Your task to perform on an android device: read, delete, or share a saved page in the chrome app Image 0: 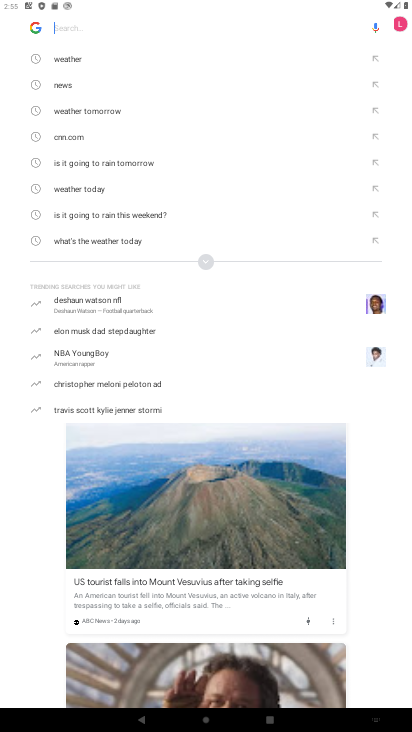
Step 0: press home button
Your task to perform on an android device: read, delete, or share a saved page in the chrome app Image 1: 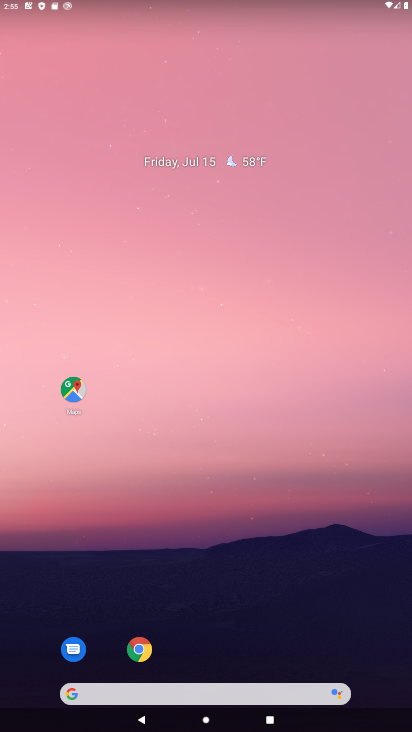
Step 1: drag from (235, 722) to (297, 213)
Your task to perform on an android device: read, delete, or share a saved page in the chrome app Image 2: 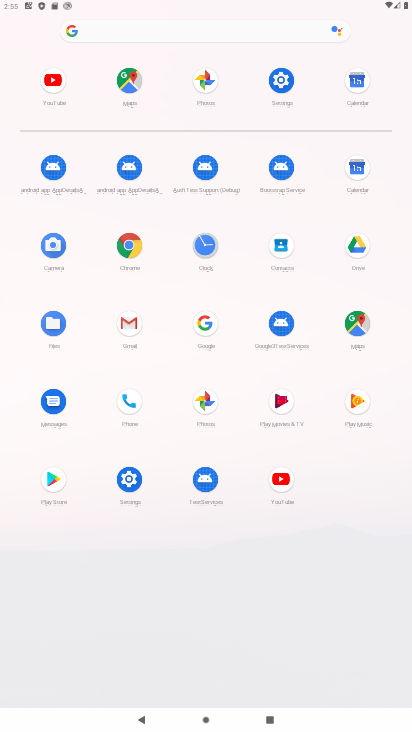
Step 2: click (136, 249)
Your task to perform on an android device: read, delete, or share a saved page in the chrome app Image 3: 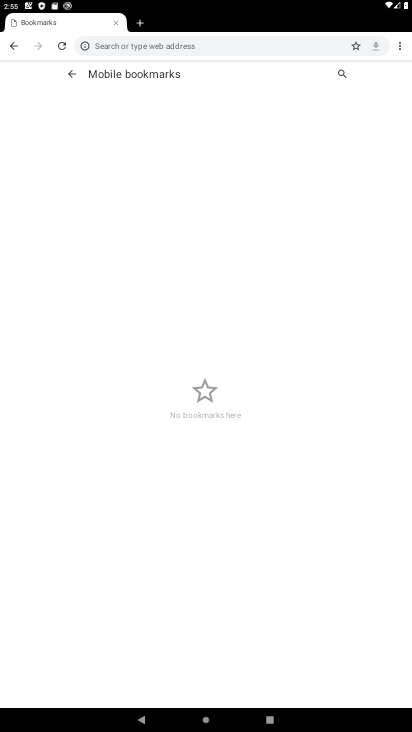
Step 3: click (399, 46)
Your task to perform on an android device: read, delete, or share a saved page in the chrome app Image 4: 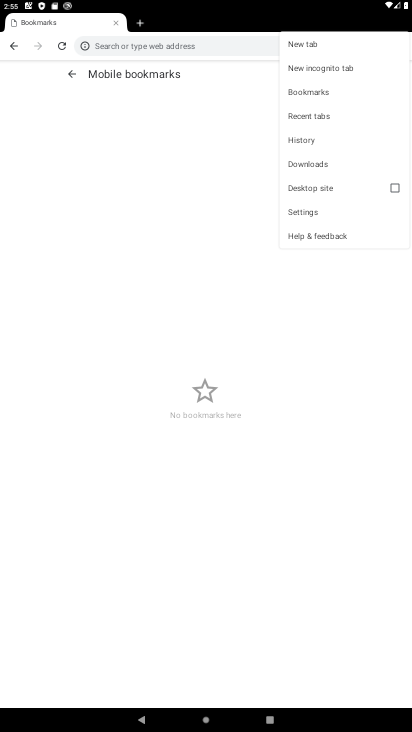
Step 4: click (315, 163)
Your task to perform on an android device: read, delete, or share a saved page in the chrome app Image 5: 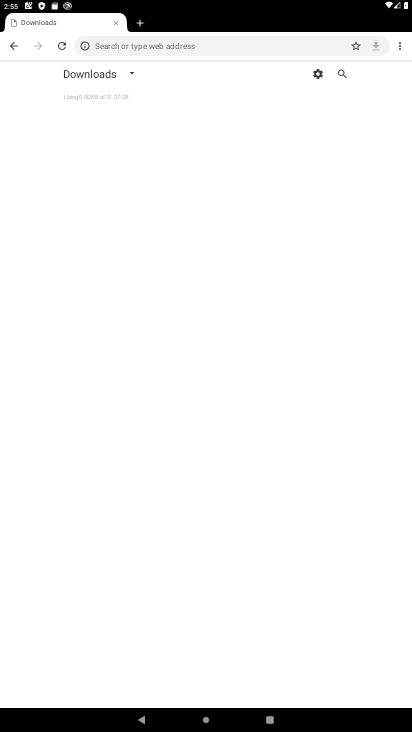
Step 5: task complete